Your task to perform on an android device: open the mobile data screen to see how much data has been used Image 0: 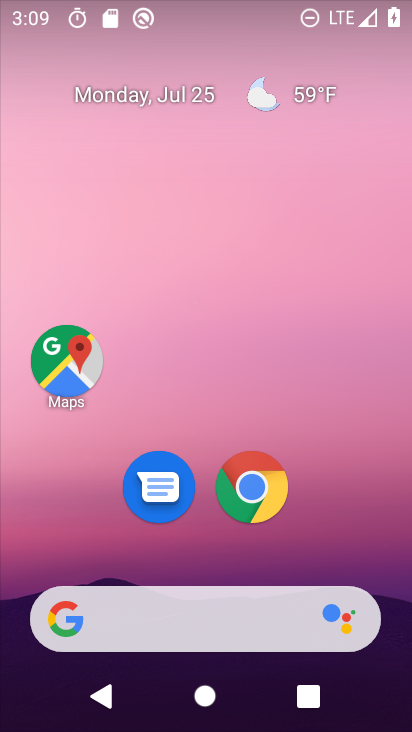
Step 0: drag from (222, 535) to (295, 8)
Your task to perform on an android device: open the mobile data screen to see how much data has been used Image 1: 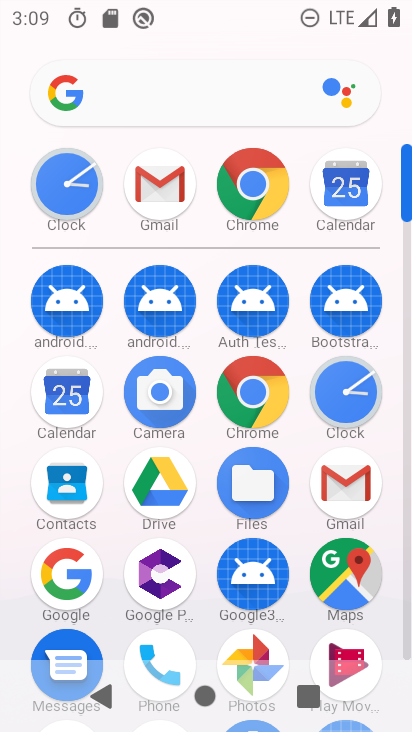
Step 1: drag from (180, 529) to (293, 9)
Your task to perform on an android device: open the mobile data screen to see how much data has been used Image 2: 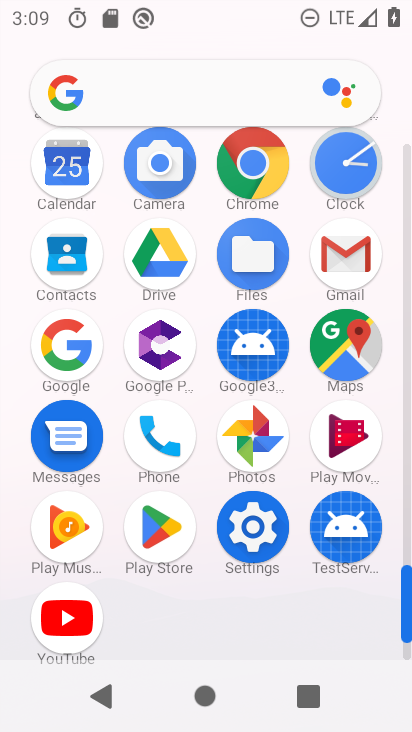
Step 2: click (256, 540)
Your task to perform on an android device: open the mobile data screen to see how much data has been used Image 3: 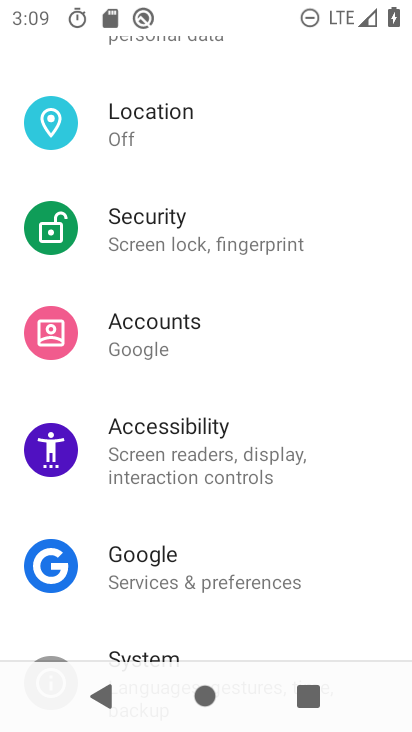
Step 3: drag from (273, 124) to (228, 532)
Your task to perform on an android device: open the mobile data screen to see how much data has been used Image 4: 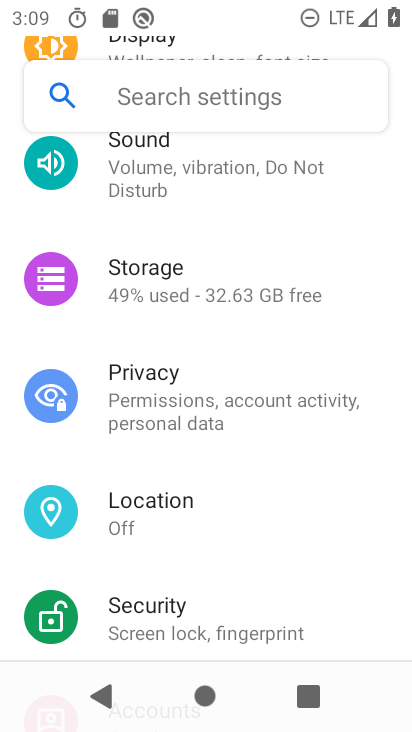
Step 4: drag from (250, 179) to (250, 597)
Your task to perform on an android device: open the mobile data screen to see how much data has been used Image 5: 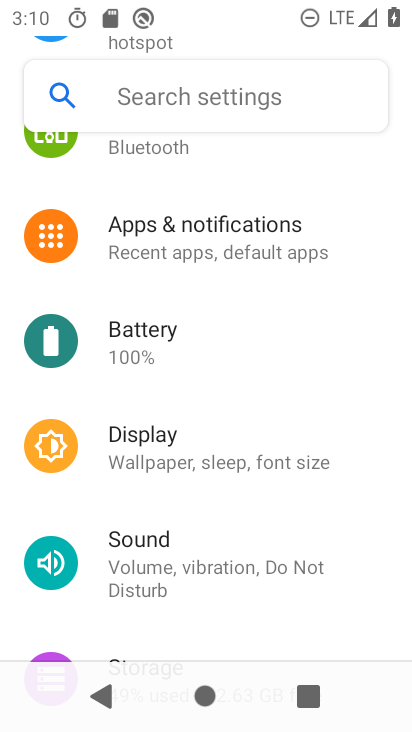
Step 5: drag from (217, 235) to (171, 663)
Your task to perform on an android device: open the mobile data screen to see how much data has been used Image 6: 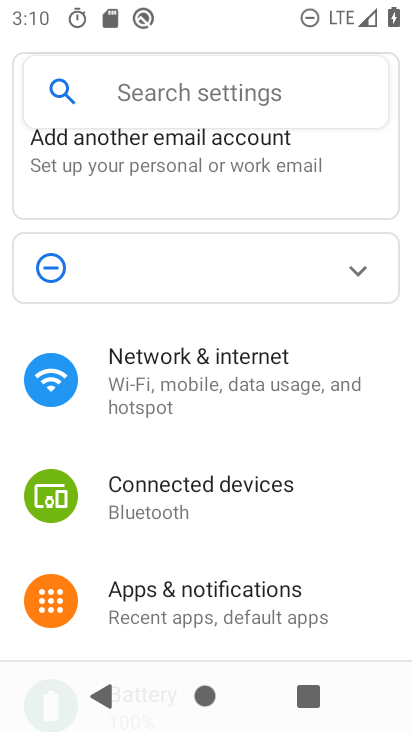
Step 6: click (195, 388)
Your task to perform on an android device: open the mobile data screen to see how much data has been used Image 7: 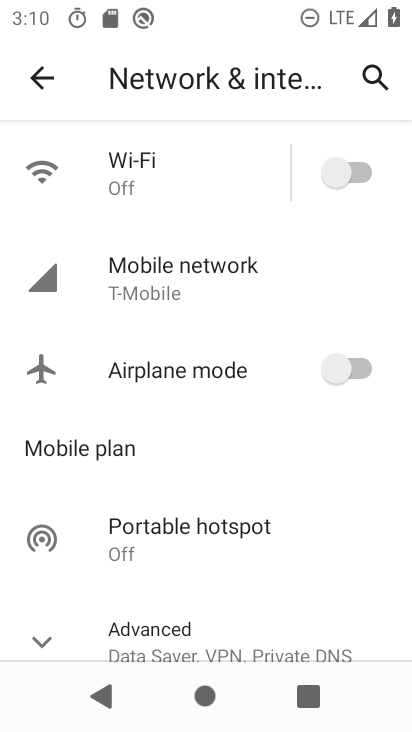
Step 7: drag from (130, 617) to (164, 554)
Your task to perform on an android device: open the mobile data screen to see how much data has been used Image 8: 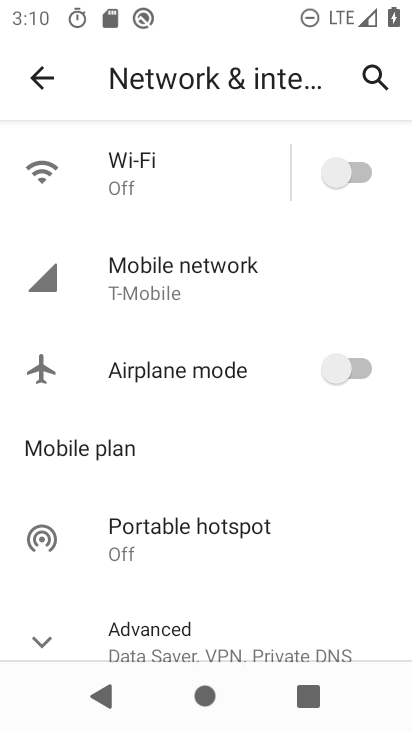
Step 8: click (220, 289)
Your task to perform on an android device: open the mobile data screen to see how much data has been used Image 9: 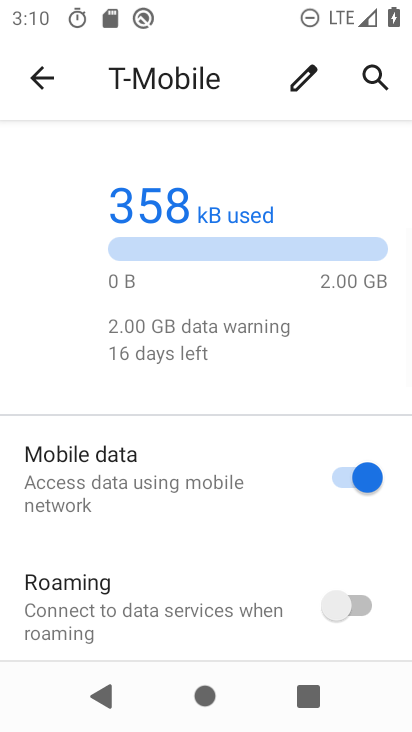
Step 9: drag from (155, 630) to (250, 104)
Your task to perform on an android device: open the mobile data screen to see how much data has been used Image 10: 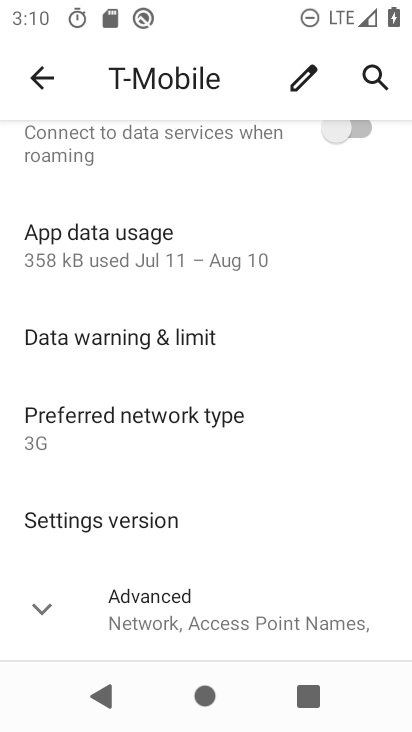
Step 10: click (148, 248)
Your task to perform on an android device: open the mobile data screen to see how much data has been used Image 11: 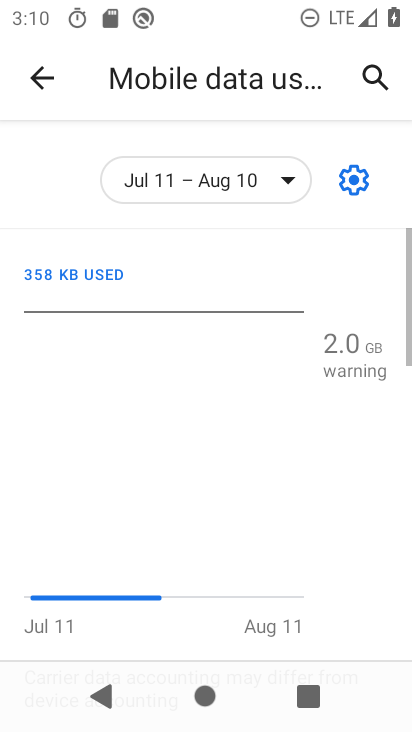
Step 11: task complete